Your task to perform on an android device: clear all cookies in the chrome app Image 0: 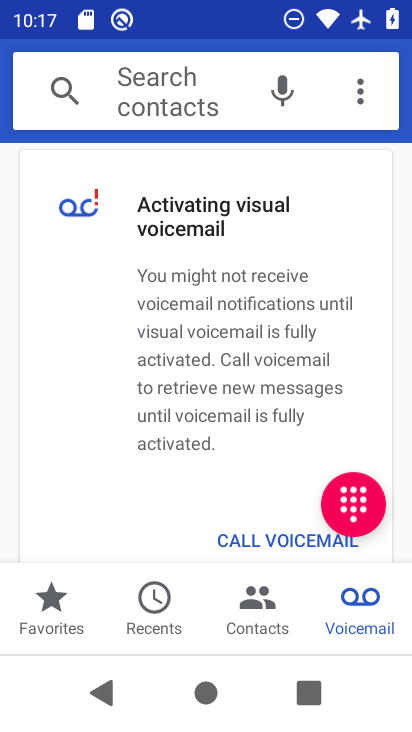
Step 0: press home button
Your task to perform on an android device: clear all cookies in the chrome app Image 1: 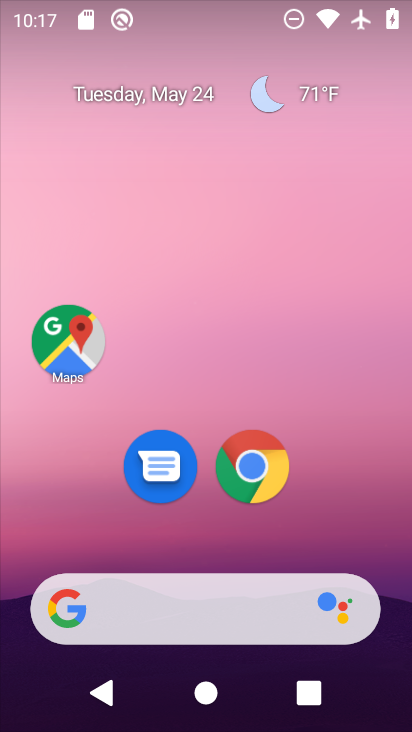
Step 1: click (256, 466)
Your task to perform on an android device: clear all cookies in the chrome app Image 2: 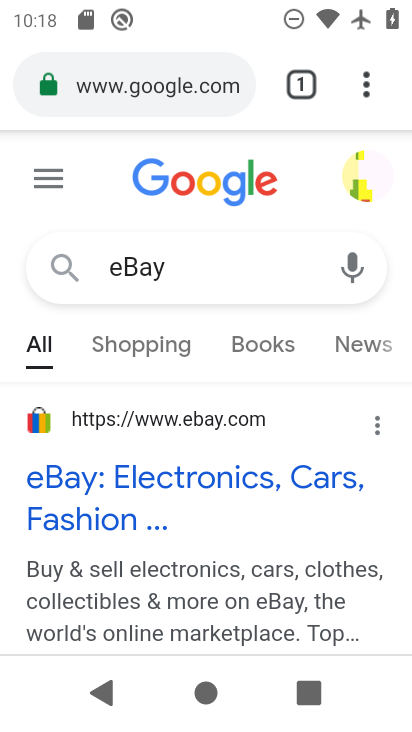
Step 2: click (374, 99)
Your task to perform on an android device: clear all cookies in the chrome app Image 3: 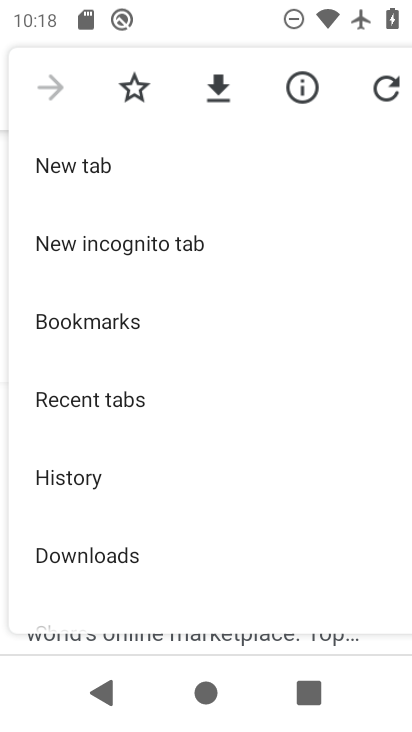
Step 3: click (93, 483)
Your task to perform on an android device: clear all cookies in the chrome app Image 4: 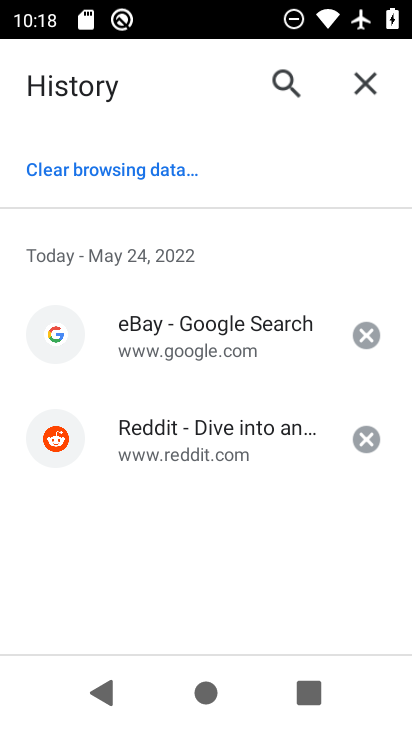
Step 4: click (153, 172)
Your task to perform on an android device: clear all cookies in the chrome app Image 5: 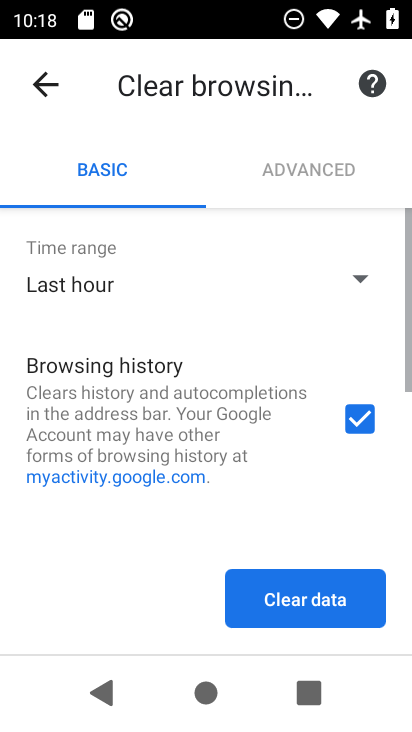
Step 5: drag from (220, 476) to (231, 363)
Your task to perform on an android device: clear all cookies in the chrome app Image 6: 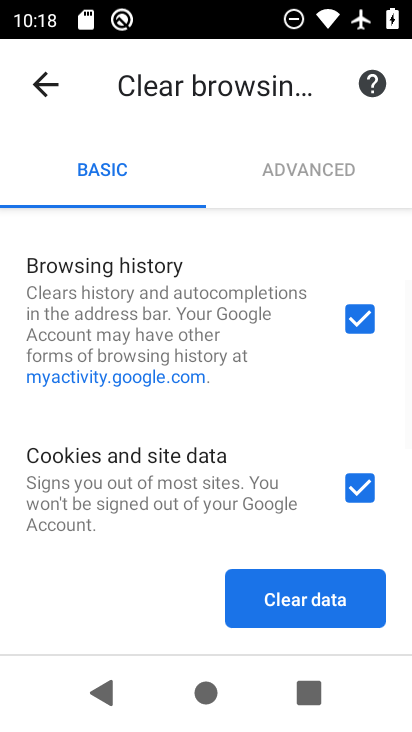
Step 6: click (357, 311)
Your task to perform on an android device: clear all cookies in the chrome app Image 7: 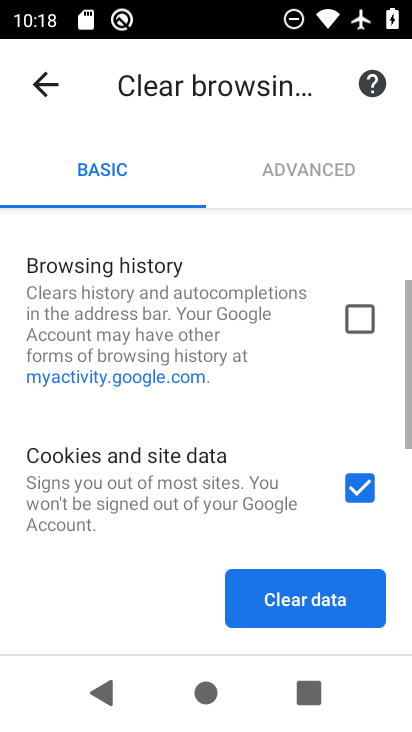
Step 7: drag from (183, 465) to (209, 169)
Your task to perform on an android device: clear all cookies in the chrome app Image 8: 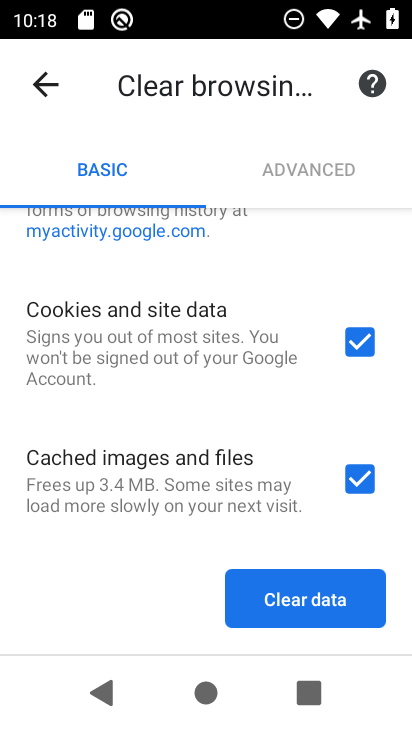
Step 8: click (347, 468)
Your task to perform on an android device: clear all cookies in the chrome app Image 9: 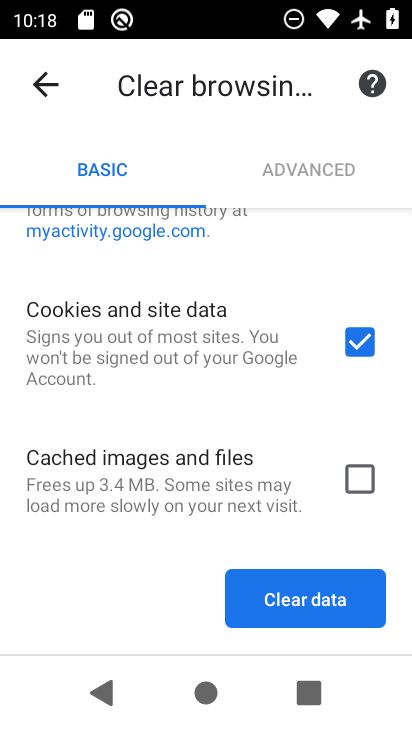
Step 9: drag from (292, 504) to (279, 661)
Your task to perform on an android device: clear all cookies in the chrome app Image 10: 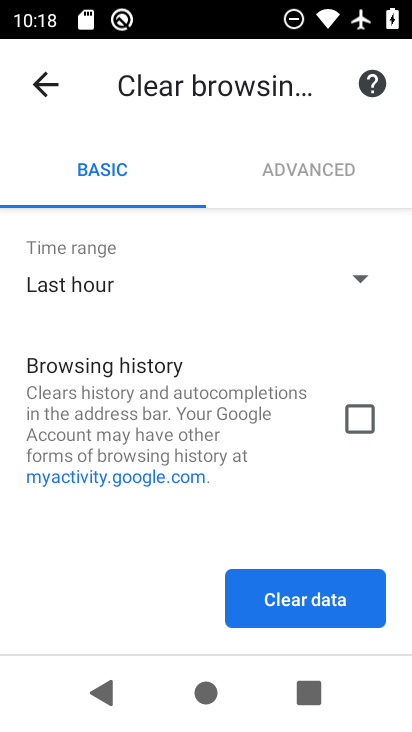
Step 10: click (283, 606)
Your task to perform on an android device: clear all cookies in the chrome app Image 11: 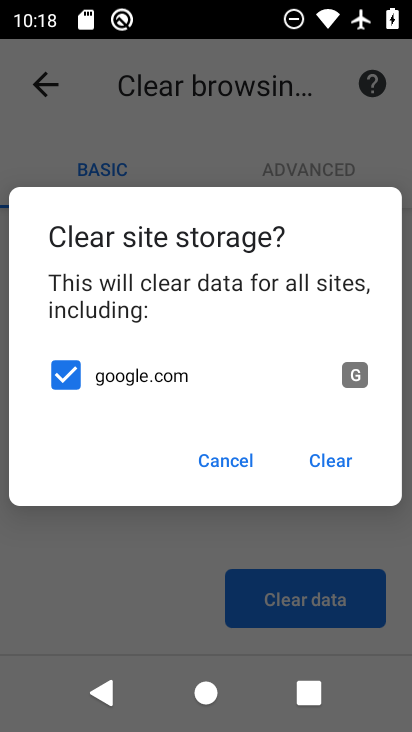
Step 11: click (347, 459)
Your task to perform on an android device: clear all cookies in the chrome app Image 12: 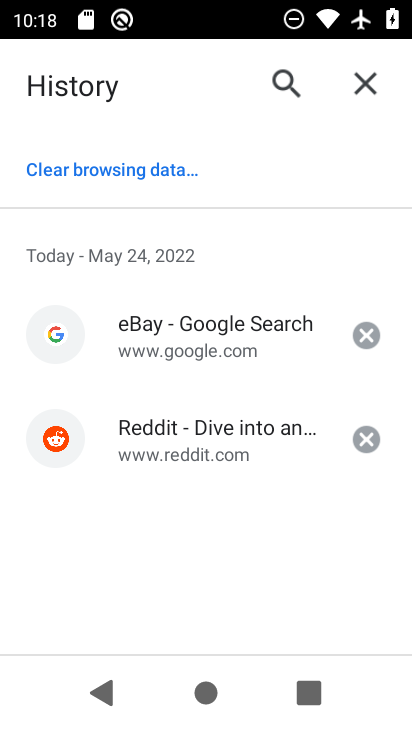
Step 12: task complete